Your task to perform on an android device: toggle improve location accuracy Image 0: 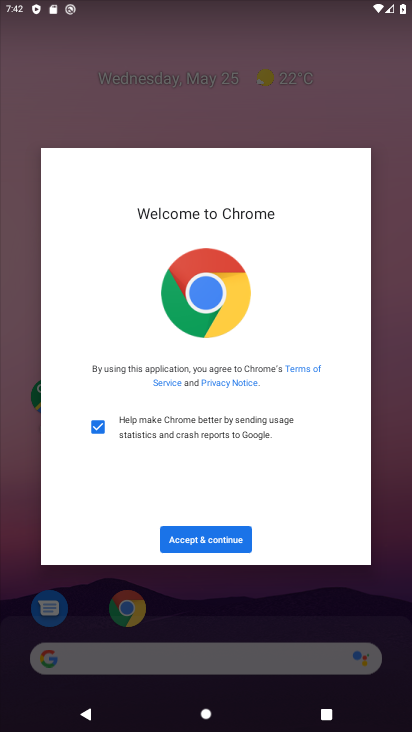
Step 0: press home button
Your task to perform on an android device: toggle improve location accuracy Image 1: 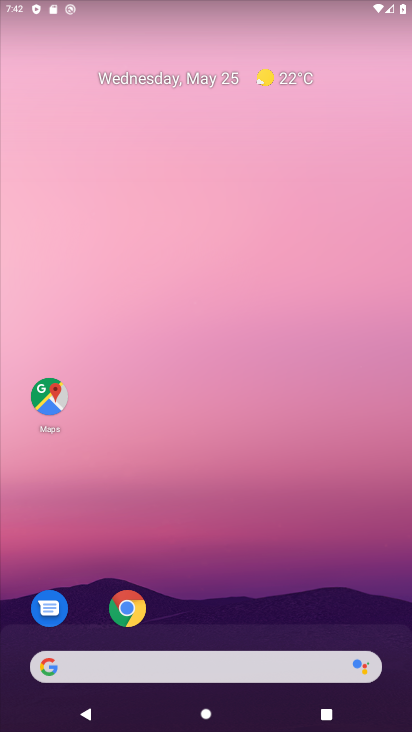
Step 1: drag from (285, 601) to (246, 69)
Your task to perform on an android device: toggle improve location accuracy Image 2: 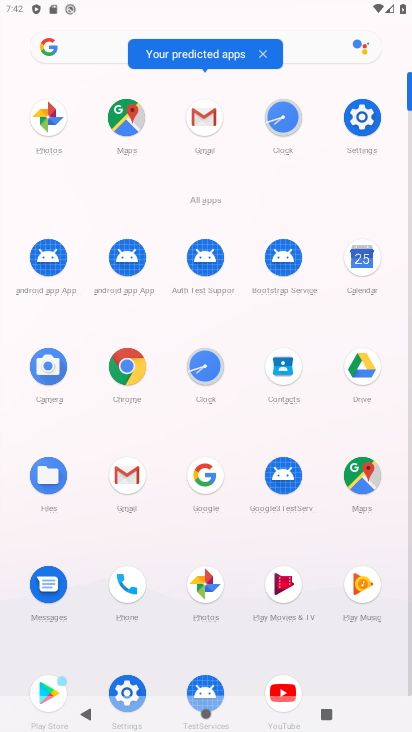
Step 2: click (362, 116)
Your task to perform on an android device: toggle improve location accuracy Image 3: 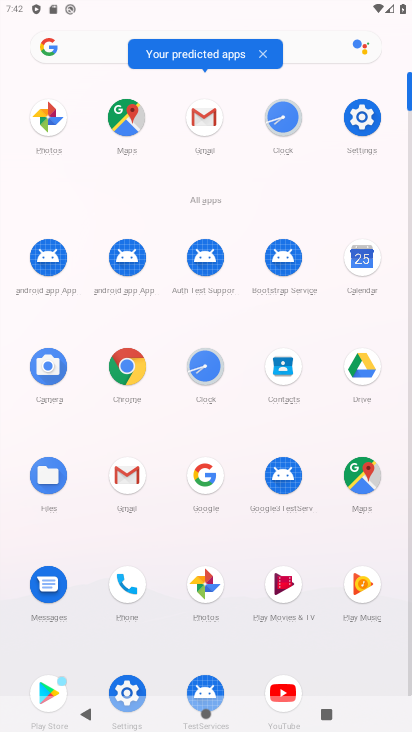
Step 3: click (362, 116)
Your task to perform on an android device: toggle improve location accuracy Image 4: 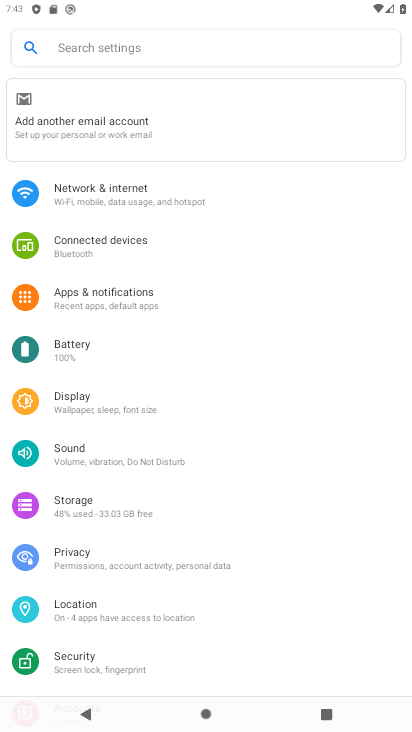
Step 4: click (71, 619)
Your task to perform on an android device: toggle improve location accuracy Image 5: 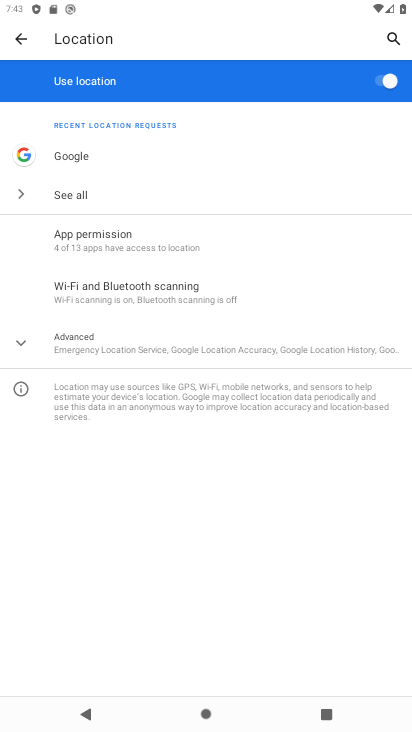
Step 5: click (178, 346)
Your task to perform on an android device: toggle improve location accuracy Image 6: 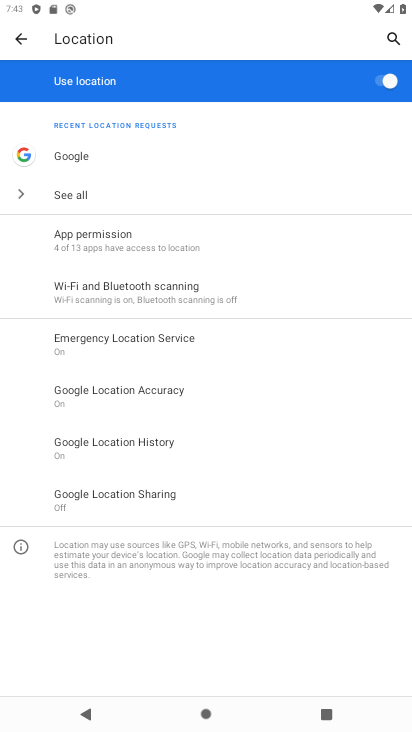
Step 6: click (154, 391)
Your task to perform on an android device: toggle improve location accuracy Image 7: 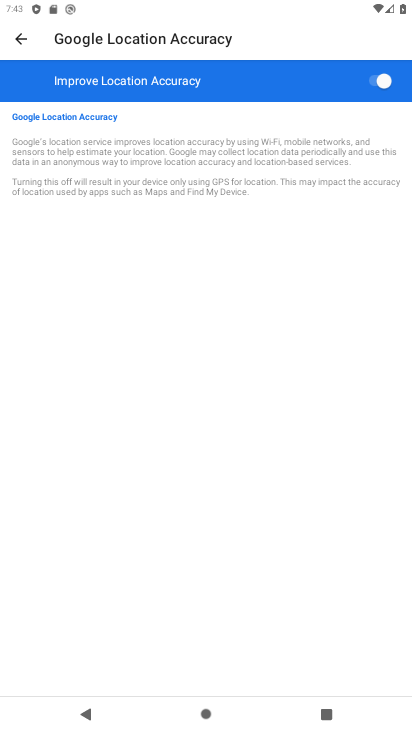
Step 7: click (393, 80)
Your task to perform on an android device: toggle improve location accuracy Image 8: 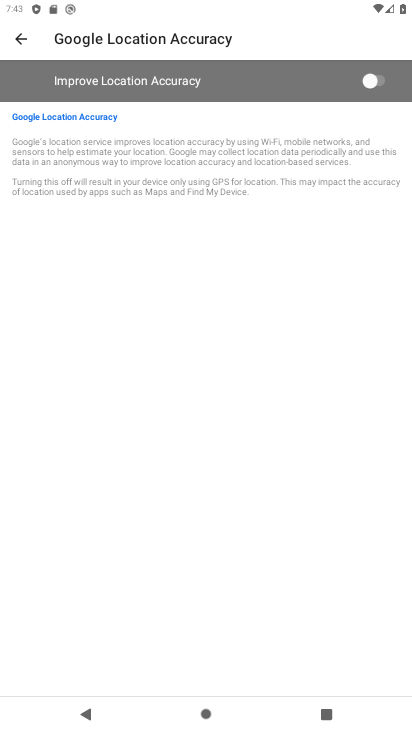
Step 8: task complete